Your task to perform on an android device: Open settings on Google Maps Image 0: 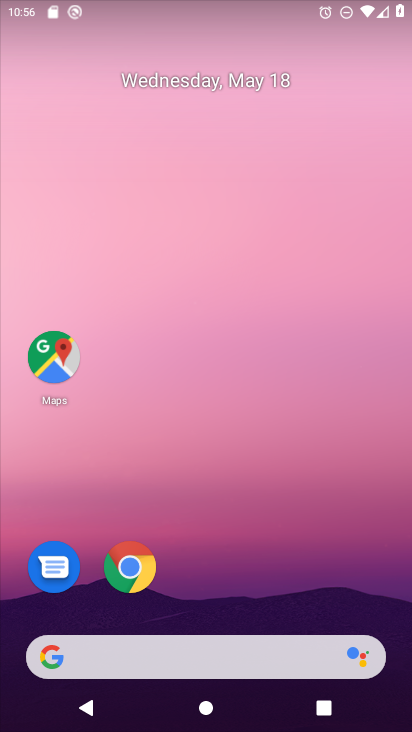
Step 0: drag from (261, 668) to (329, 173)
Your task to perform on an android device: Open settings on Google Maps Image 1: 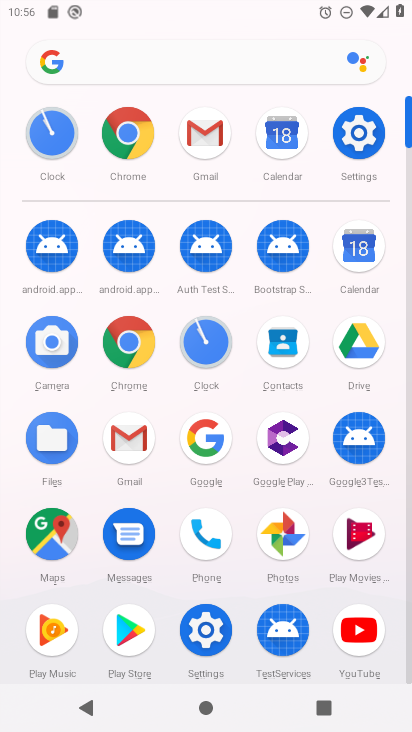
Step 1: click (48, 523)
Your task to perform on an android device: Open settings on Google Maps Image 2: 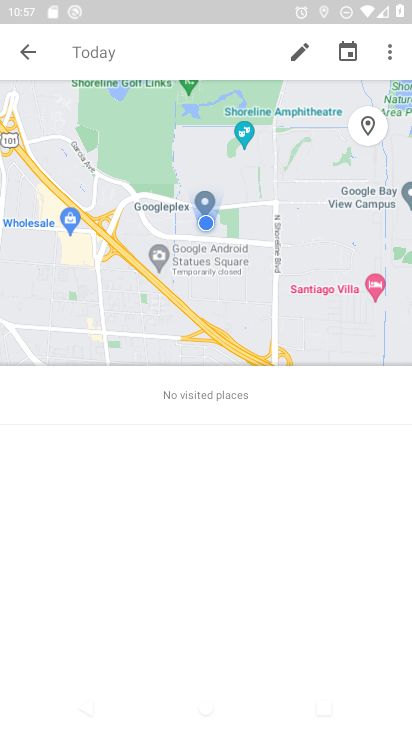
Step 2: click (28, 60)
Your task to perform on an android device: Open settings on Google Maps Image 3: 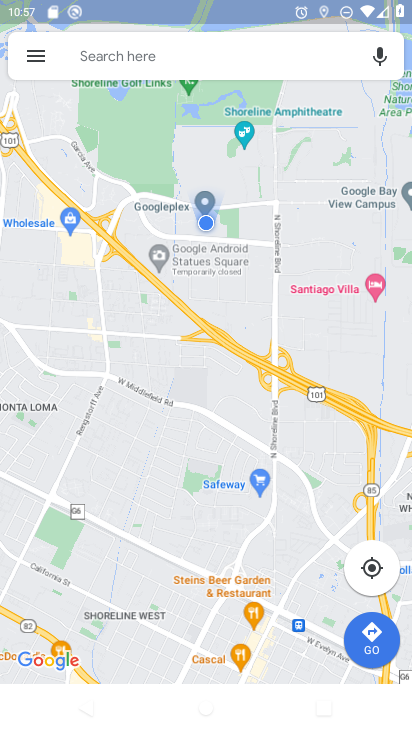
Step 3: click (43, 72)
Your task to perform on an android device: Open settings on Google Maps Image 4: 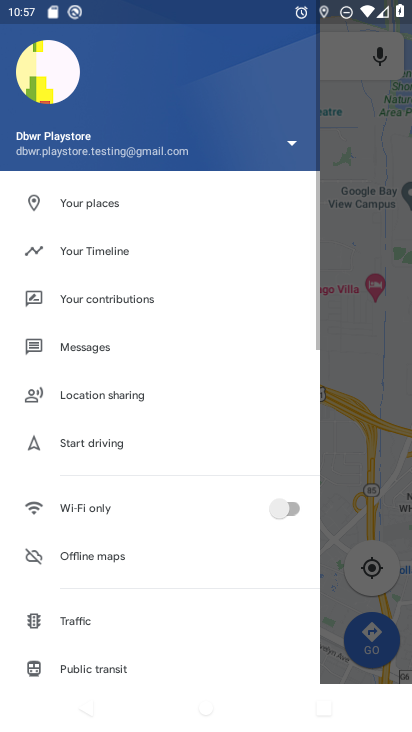
Step 4: drag from (138, 603) to (234, 98)
Your task to perform on an android device: Open settings on Google Maps Image 5: 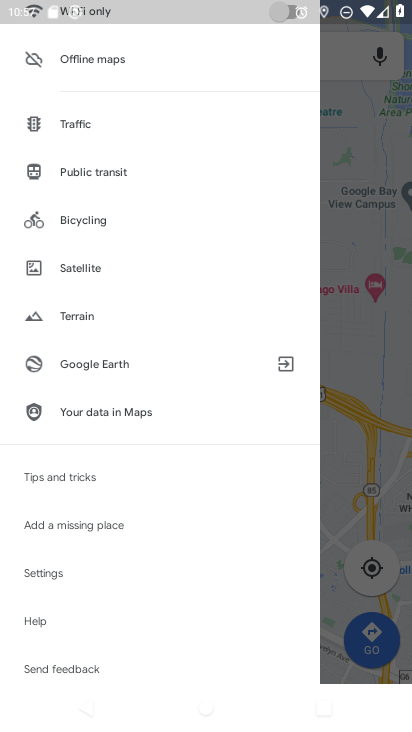
Step 5: click (68, 572)
Your task to perform on an android device: Open settings on Google Maps Image 6: 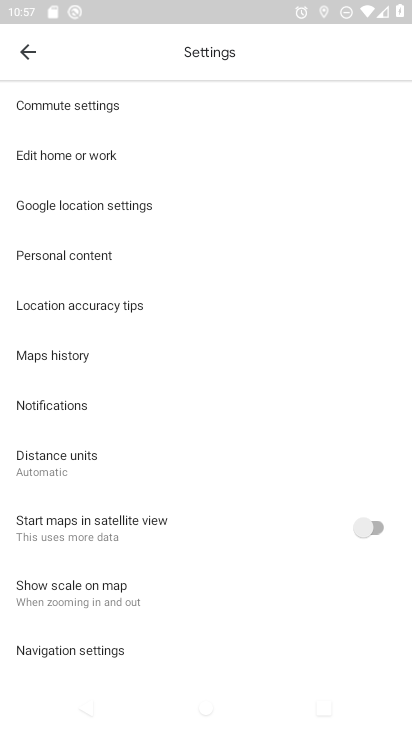
Step 6: task complete